Your task to perform on an android device: toggle airplane mode Image 0: 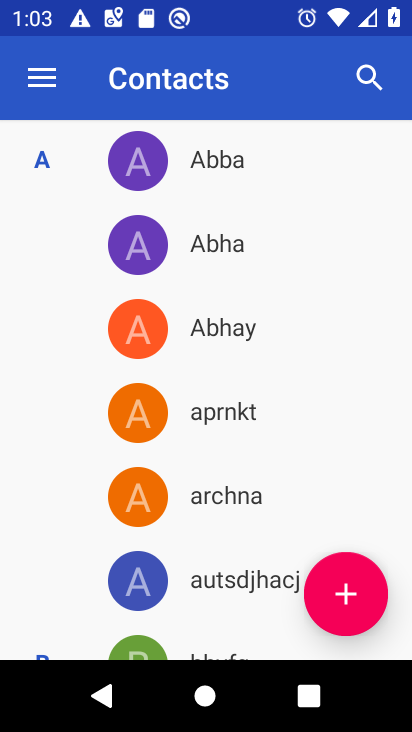
Step 0: press back button
Your task to perform on an android device: toggle airplane mode Image 1: 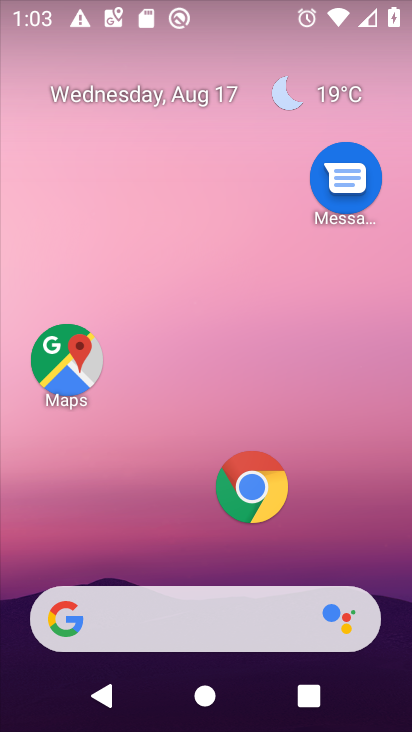
Step 1: drag from (274, 8) to (289, 565)
Your task to perform on an android device: toggle airplane mode Image 2: 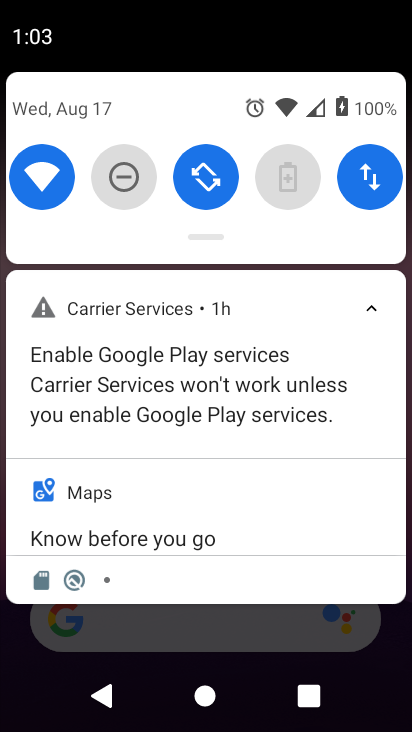
Step 2: drag from (216, 227) to (233, 635)
Your task to perform on an android device: toggle airplane mode Image 3: 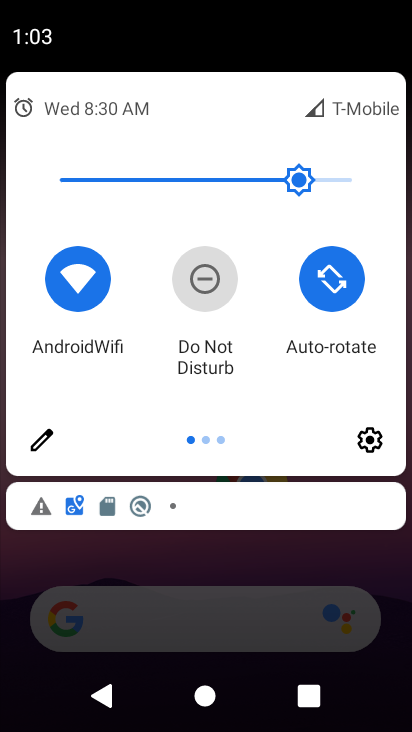
Step 3: drag from (371, 281) to (7, 275)
Your task to perform on an android device: toggle airplane mode Image 4: 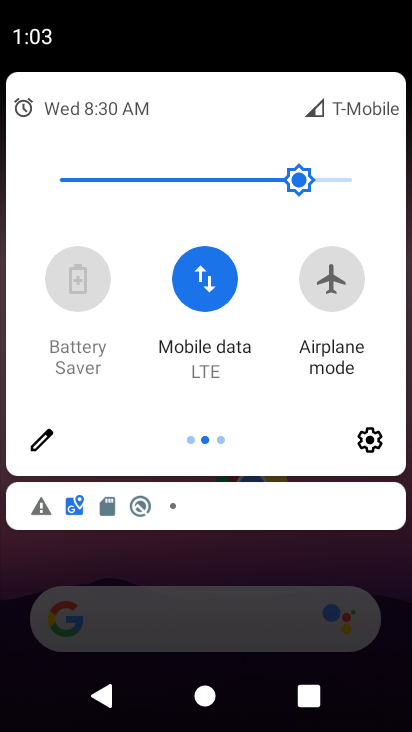
Step 4: click (336, 273)
Your task to perform on an android device: toggle airplane mode Image 5: 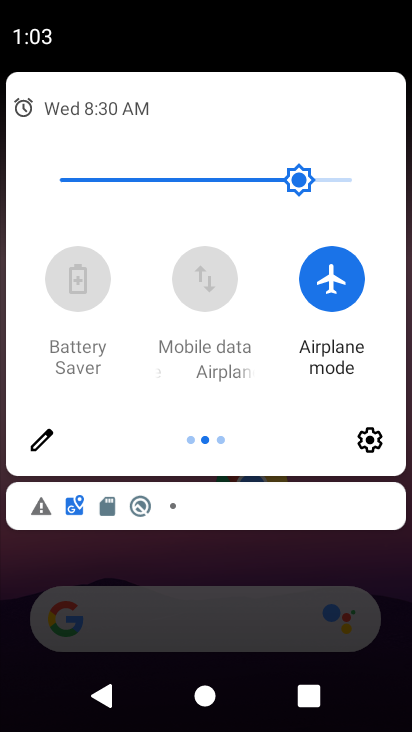
Step 5: task complete